Your task to perform on an android device: set default search engine in the chrome app Image 0: 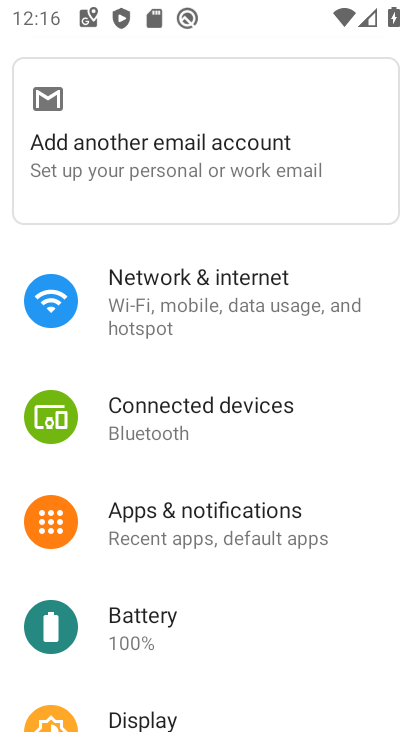
Step 0: press home button
Your task to perform on an android device: set default search engine in the chrome app Image 1: 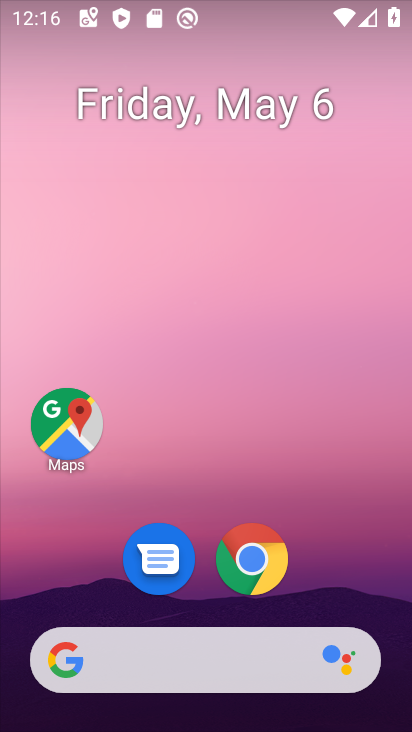
Step 1: click (245, 566)
Your task to perform on an android device: set default search engine in the chrome app Image 2: 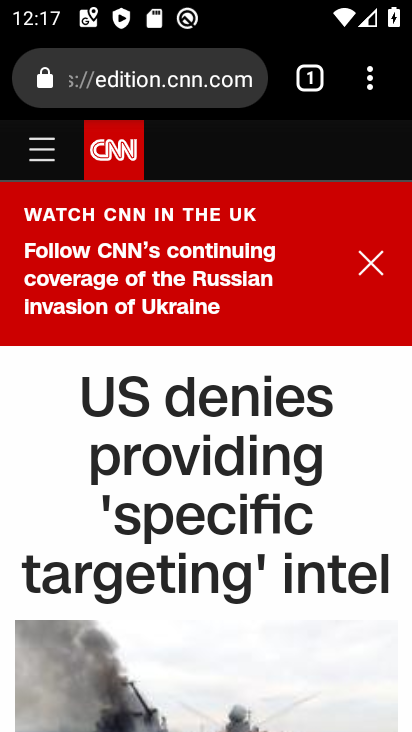
Step 2: click (368, 88)
Your task to perform on an android device: set default search engine in the chrome app Image 3: 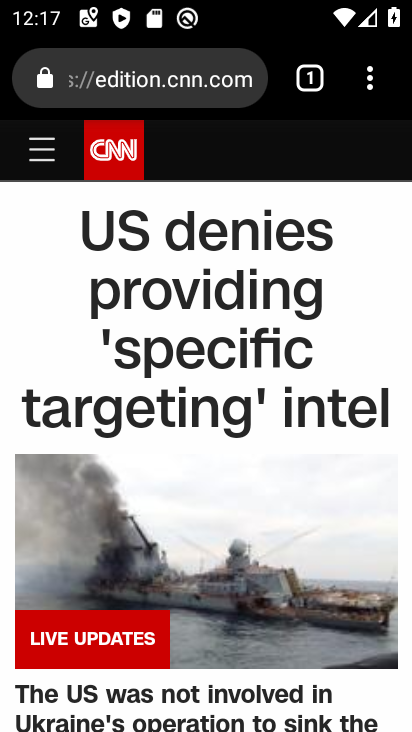
Step 3: click (369, 88)
Your task to perform on an android device: set default search engine in the chrome app Image 4: 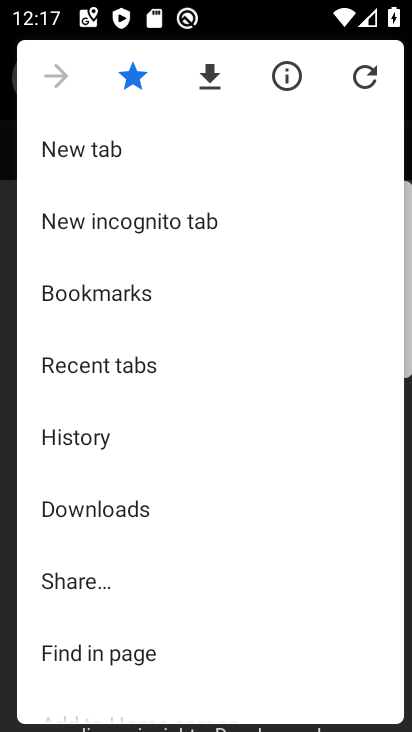
Step 4: drag from (110, 606) to (137, 243)
Your task to perform on an android device: set default search engine in the chrome app Image 5: 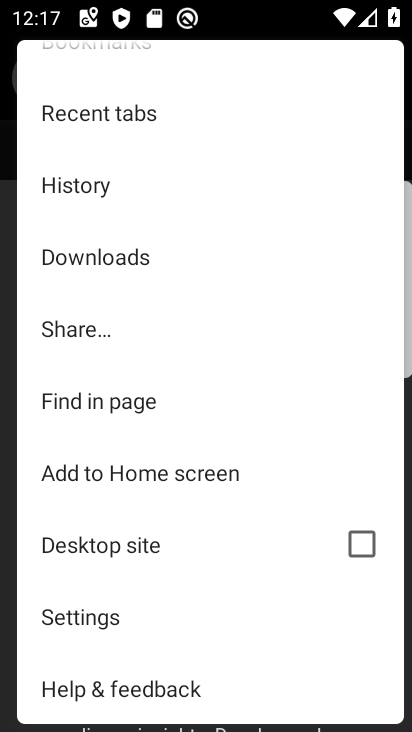
Step 5: click (131, 617)
Your task to perform on an android device: set default search engine in the chrome app Image 6: 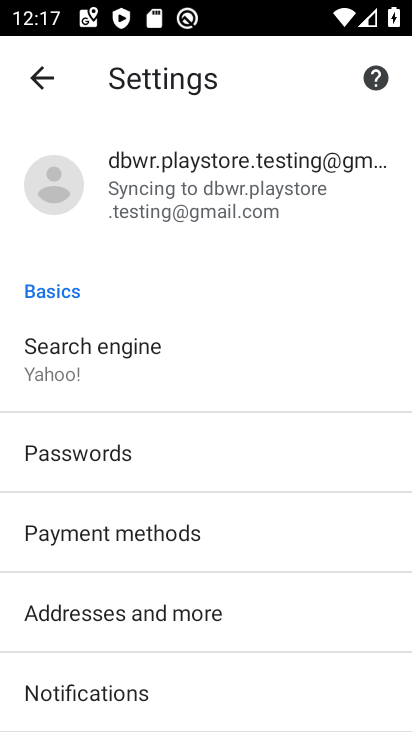
Step 6: click (124, 349)
Your task to perform on an android device: set default search engine in the chrome app Image 7: 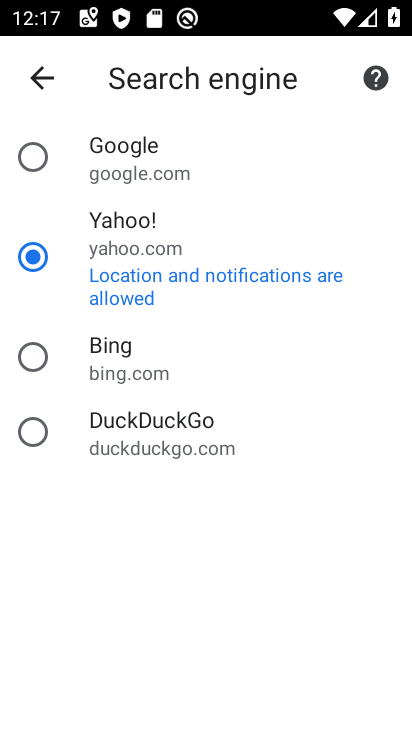
Step 7: click (150, 173)
Your task to perform on an android device: set default search engine in the chrome app Image 8: 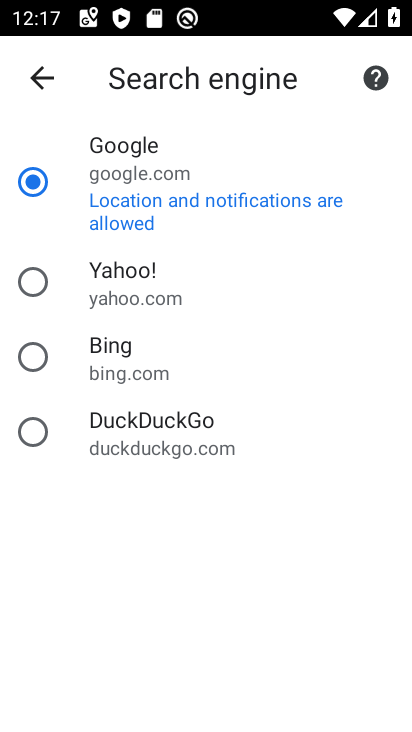
Step 8: task complete